Your task to perform on an android device: Go to internet settings Image 0: 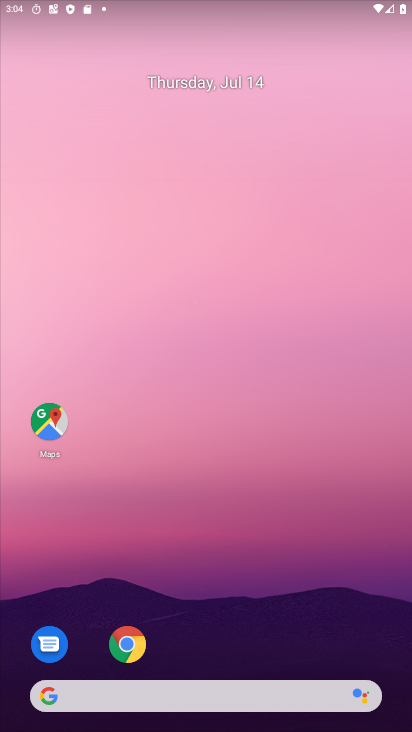
Step 0: drag from (31, 678) to (263, 348)
Your task to perform on an android device: Go to internet settings Image 1: 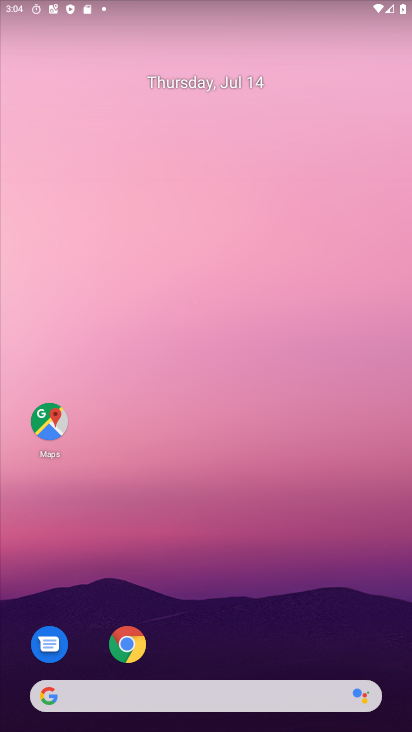
Step 1: drag from (45, 656) to (155, 247)
Your task to perform on an android device: Go to internet settings Image 2: 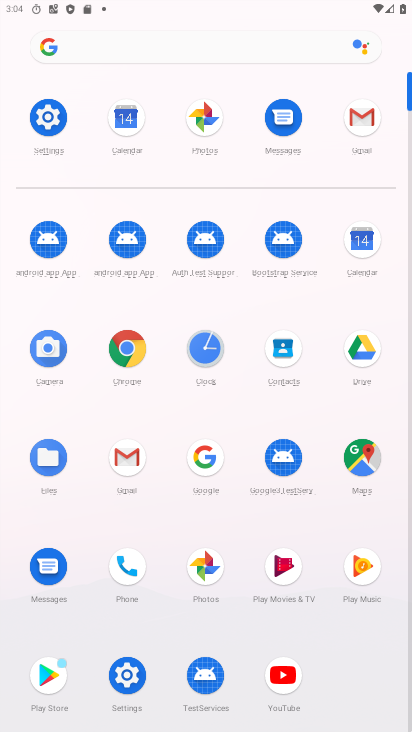
Step 2: click (128, 675)
Your task to perform on an android device: Go to internet settings Image 3: 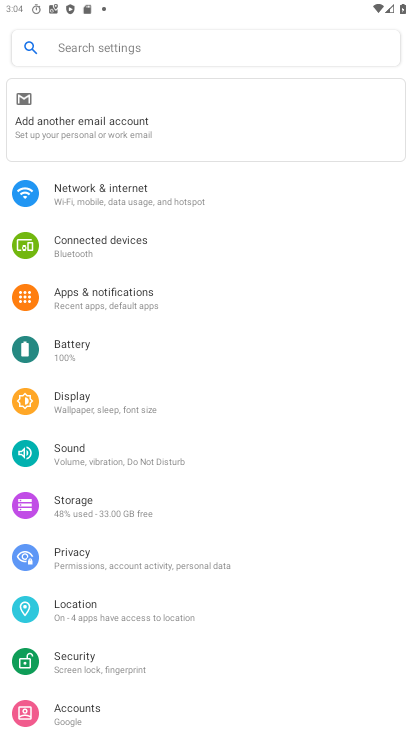
Step 3: click (104, 182)
Your task to perform on an android device: Go to internet settings Image 4: 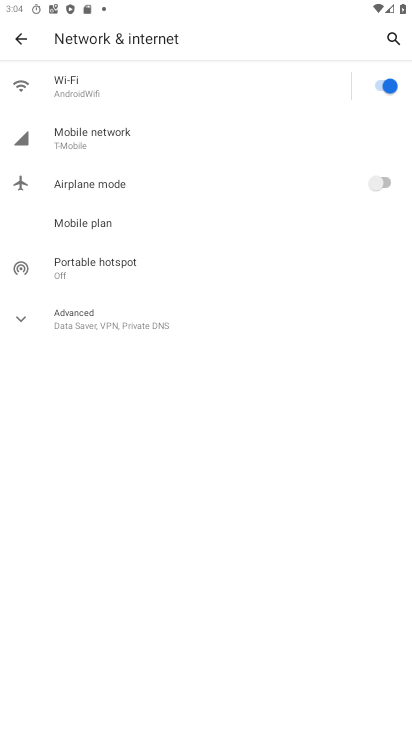
Step 4: task complete